Your task to perform on an android device: Show me popular games on the Play Store Image 0: 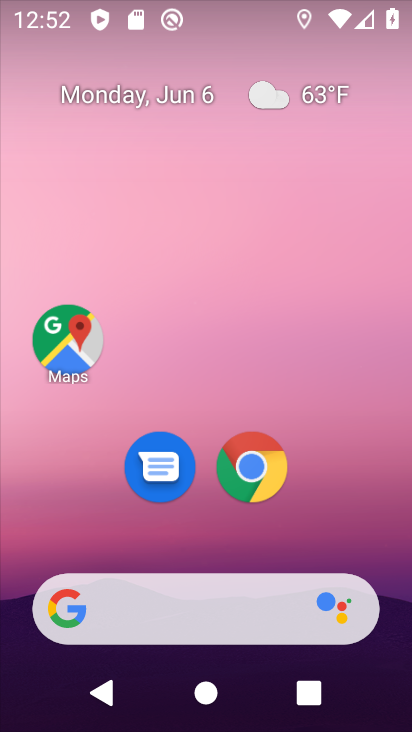
Step 0: drag from (407, 554) to (298, 17)
Your task to perform on an android device: Show me popular games on the Play Store Image 1: 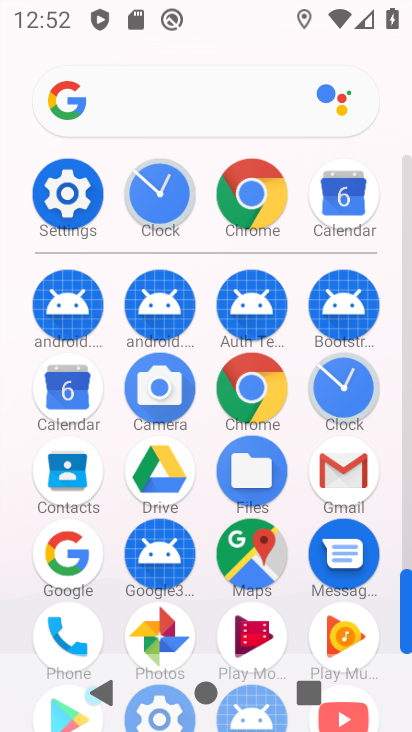
Step 1: drag from (210, 630) to (217, 76)
Your task to perform on an android device: Show me popular games on the Play Store Image 2: 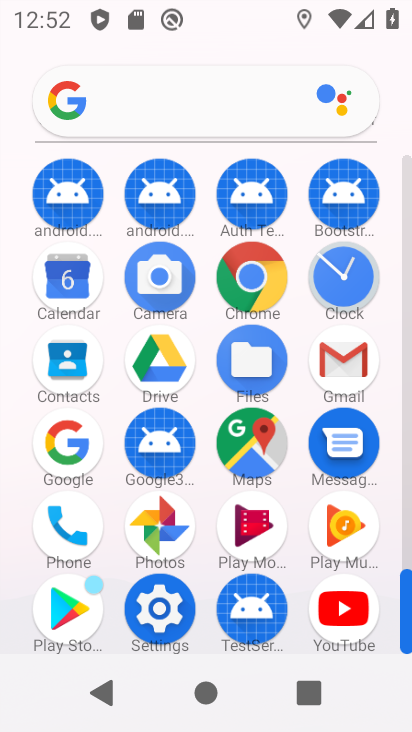
Step 2: click (69, 591)
Your task to perform on an android device: Show me popular games on the Play Store Image 3: 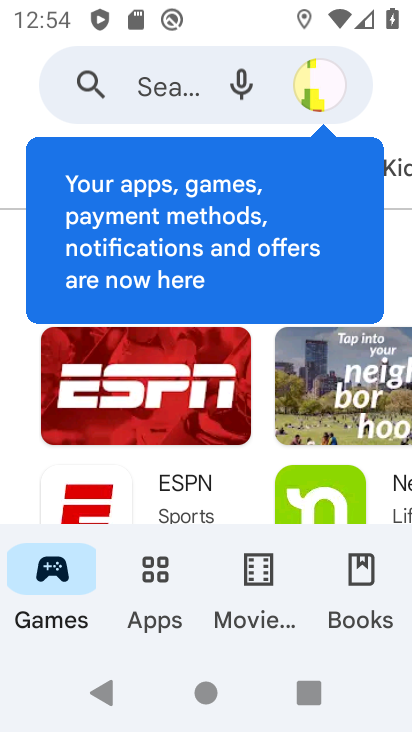
Step 3: task complete